Your task to perform on an android device: Go to Yahoo.com Image 0: 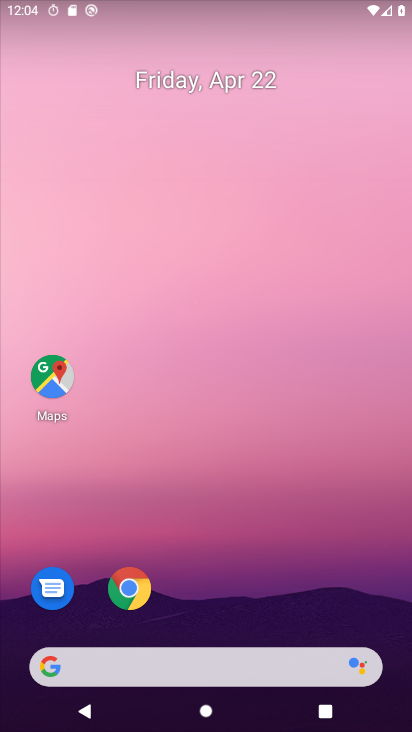
Step 0: click (125, 601)
Your task to perform on an android device: Go to Yahoo.com Image 1: 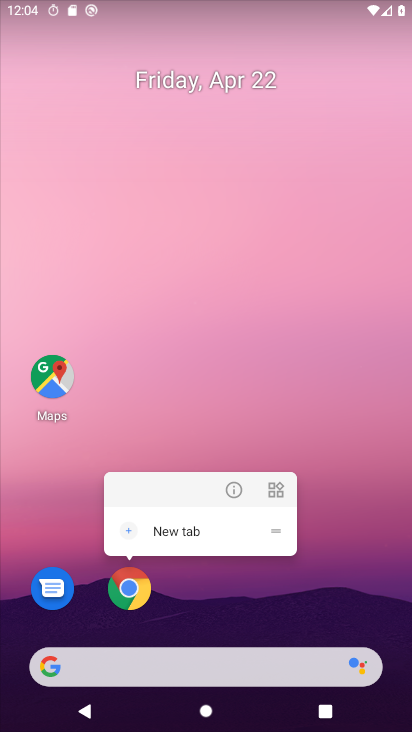
Step 1: click (132, 602)
Your task to perform on an android device: Go to Yahoo.com Image 2: 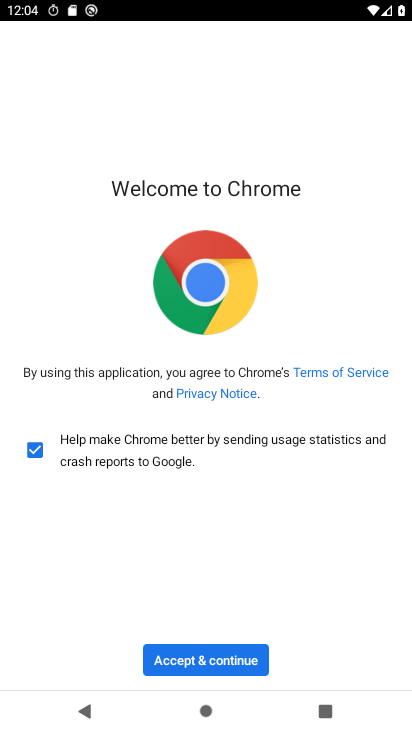
Step 2: click (240, 657)
Your task to perform on an android device: Go to Yahoo.com Image 3: 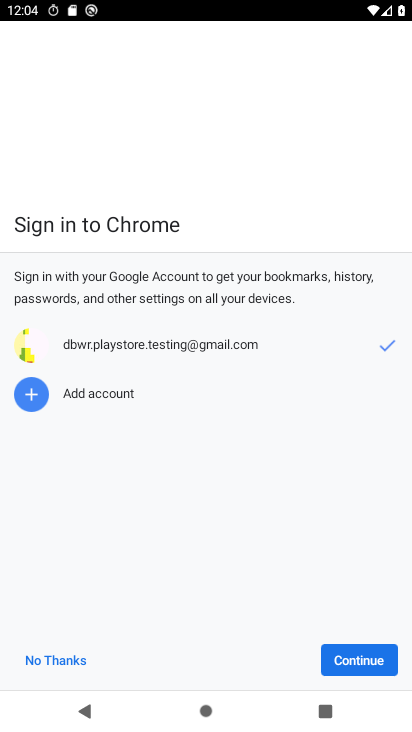
Step 3: click (350, 666)
Your task to perform on an android device: Go to Yahoo.com Image 4: 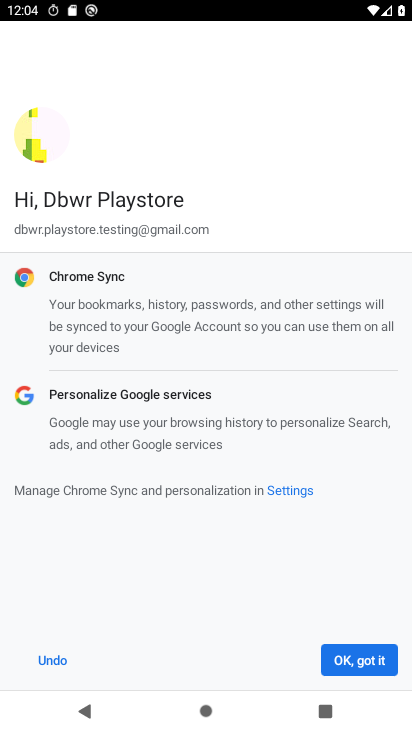
Step 4: click (354, 657)
Your task to perform on an android device: Go to Yahoo.com Image 5: 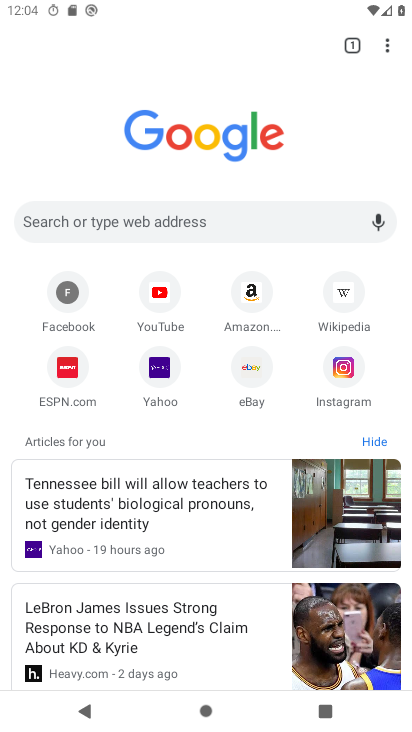
Step 5: click (152, 374)
Your task to perform on an android device: Go to Yahoo.com Image 6: 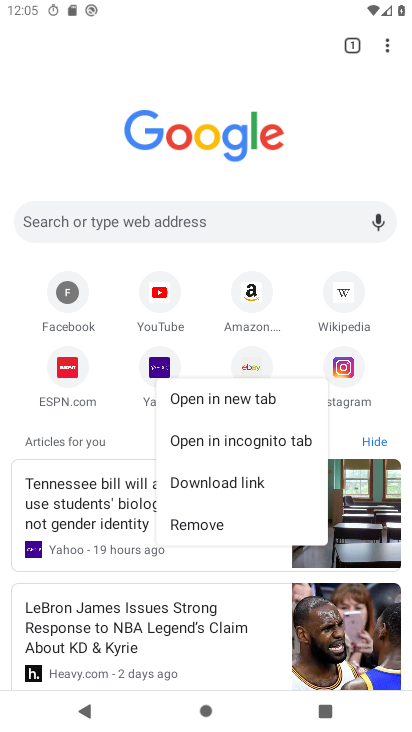
Step 6: click (152, 374)
Your task to perform on an android device: Go to Yahoo.com Image 7: 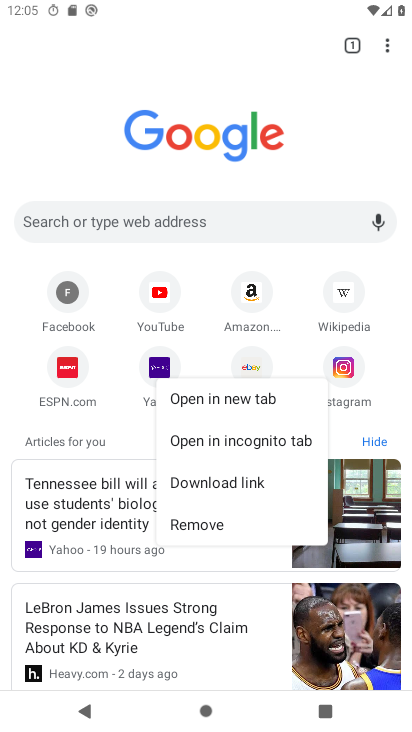
Step 7: click (152, 374)
Your task to perform on an android device: Go to Yahoo.com Image 8: 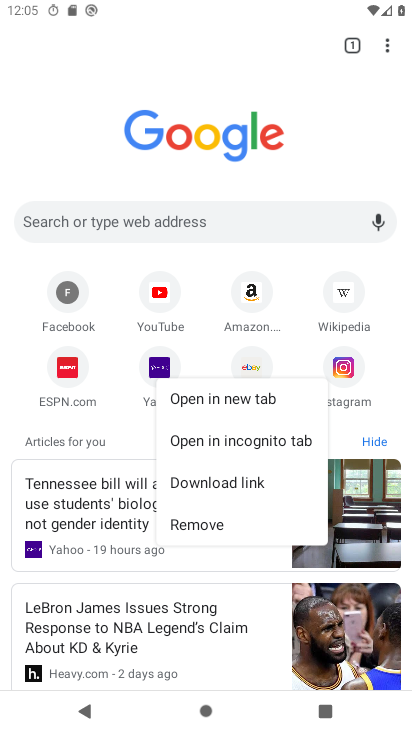
Step 8: click (159, 366)
Your task to perform on an android device: Go to Yahoo.com Image 9: 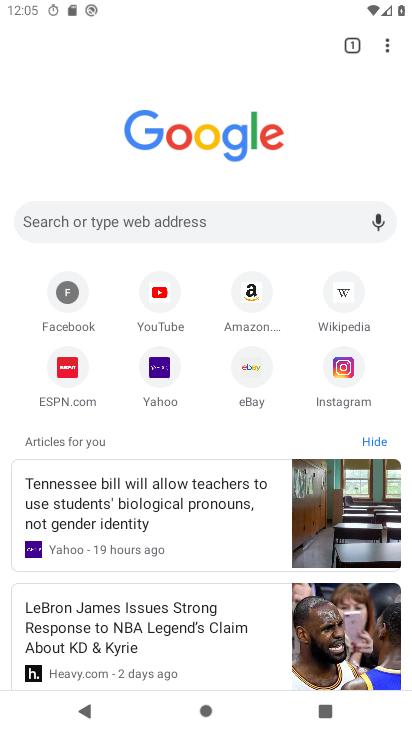
Step 9: click (160, 364)
Your task to perform on an android device: Go to Yahoo.com Image 10: 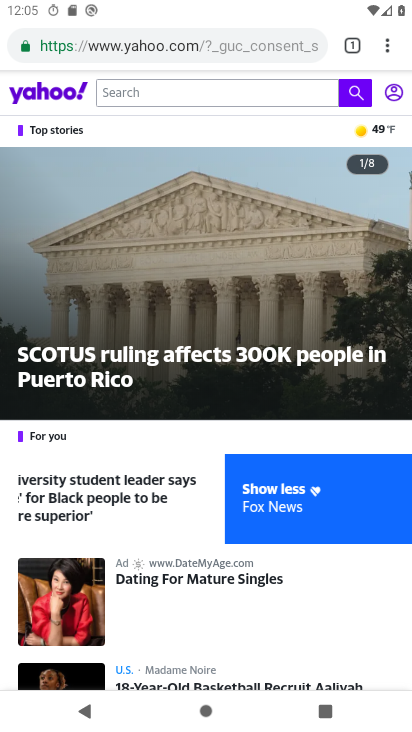
Step 10: task complete